Your task to perform on an android device: open the mobile data screen to see how much data has been used Image 0: 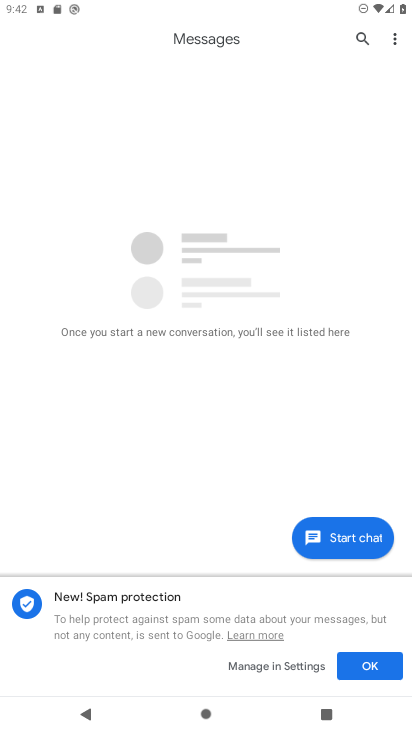
Step 0: press home button
Your task to perform on an android device: open the mobile data screen to see how much data has been used Image 1: 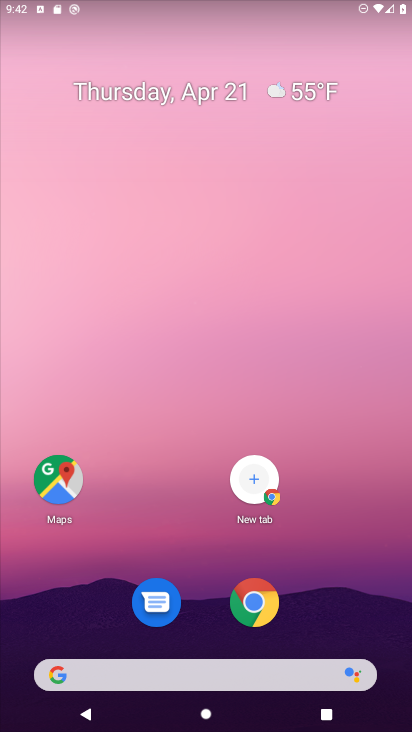
Step 1: drag from (214, 592) to (263, 184)
Your task to perform on an android device: open the mobile data screen to see how much data has been used Image 2: 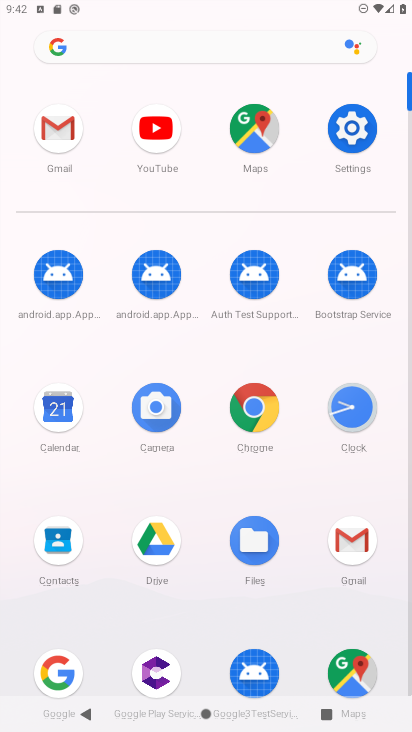
Step 2: click (350, 125)
Your task to perform on an android device: open the mobile data screen to see how much data has been used Image 3: 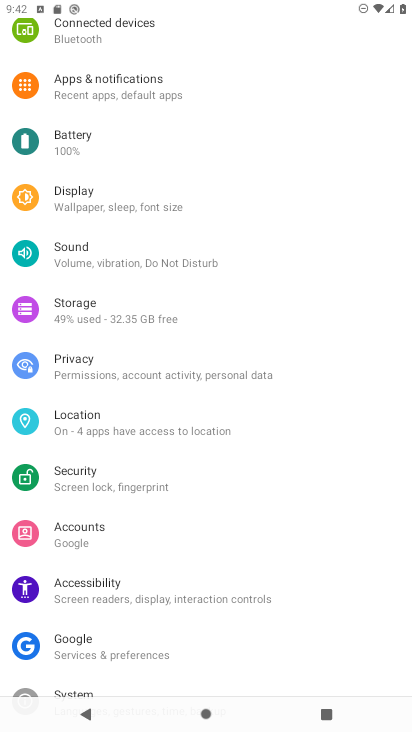
Step 3: drag from (167, 59) to (211, 520)
Your task to perform on an android device: open the mobile data screen to see how much data has been used Image 4: 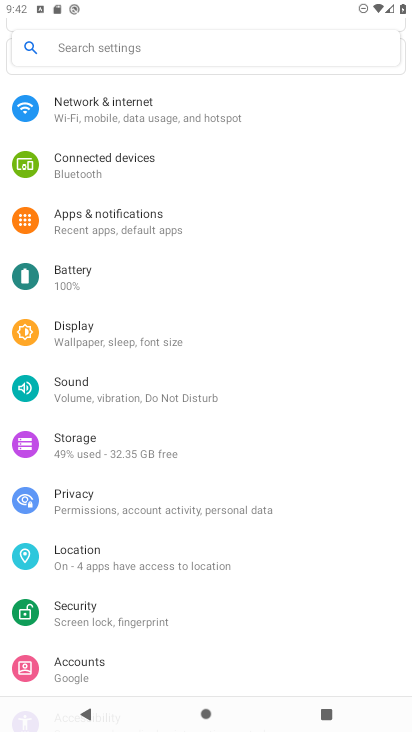
Step 4: click (154, 118)
Your task to perform on an android device: open the mobile data screen to see how much data has been used Image 5: 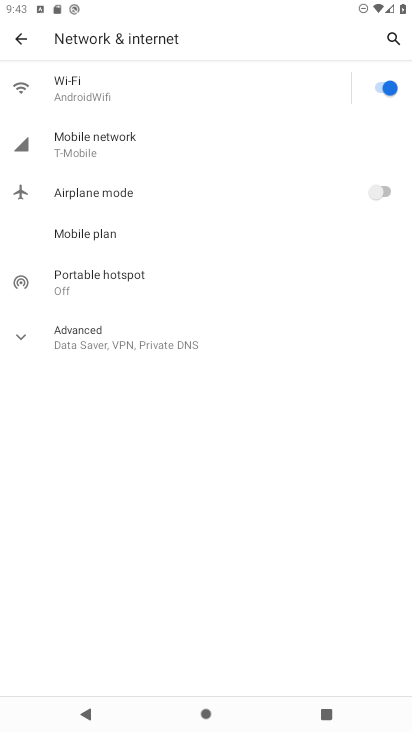
Step 5: click (102, 137)
Your task to perform on an android device: open the mobile data screen to see how much data has been used Image 6: 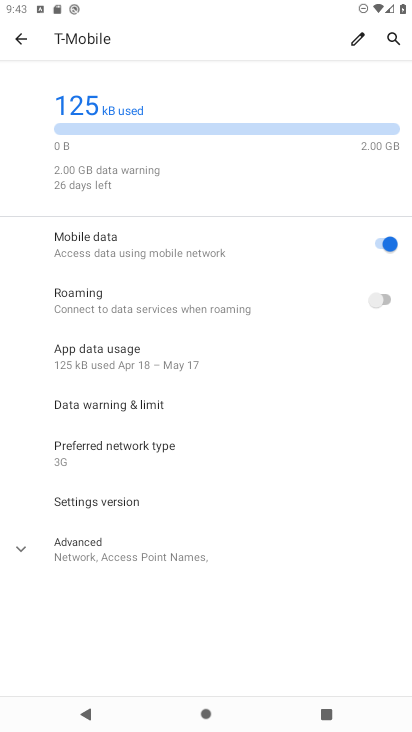
Step 6: task complete